Your task to perform on an android device: Open location settings Image 0: 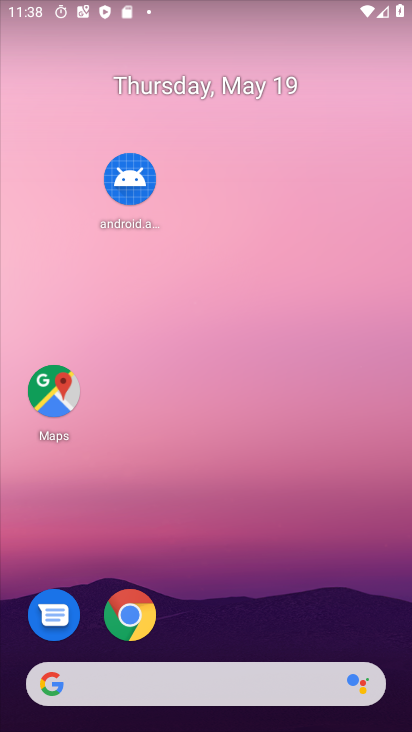
Step 0: drag from (248, 542) to (216, 196)
Your task to perform on an android device: Open location settings Image 1: 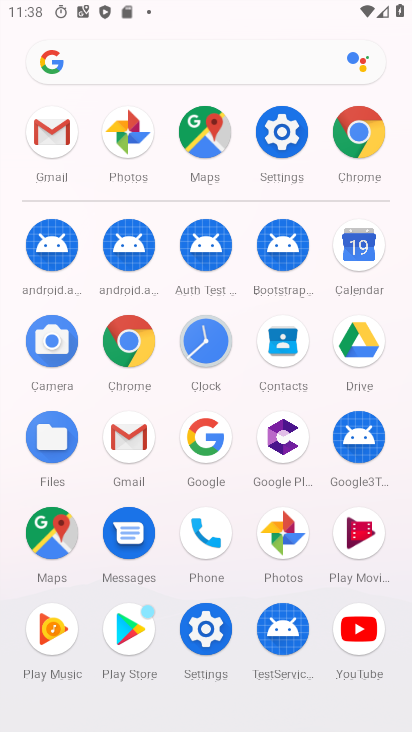
Step 1: click (214, 622)
Your task to perform on an android device: Open location settings Image 2: 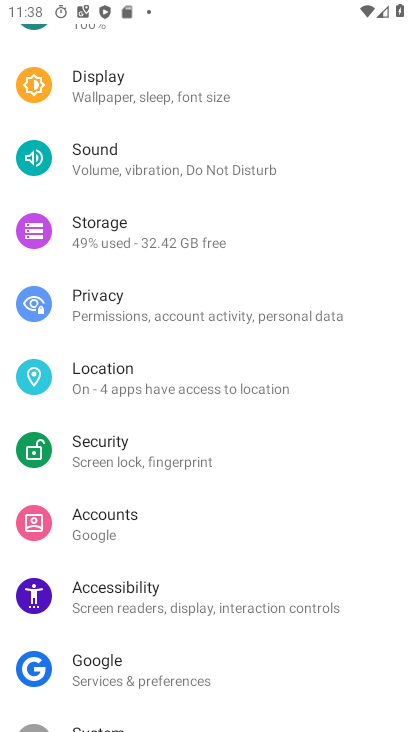
Step 2: drag from (206, 606) to (172, 336)
Your task to perform on an android device: Open location settings Image 3: 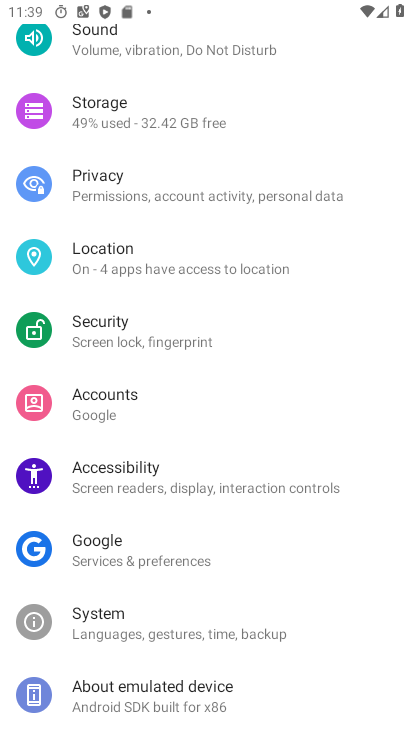
Step 3: click (171, 256)
Your task to perform on an android device: Open location settings Image 4: 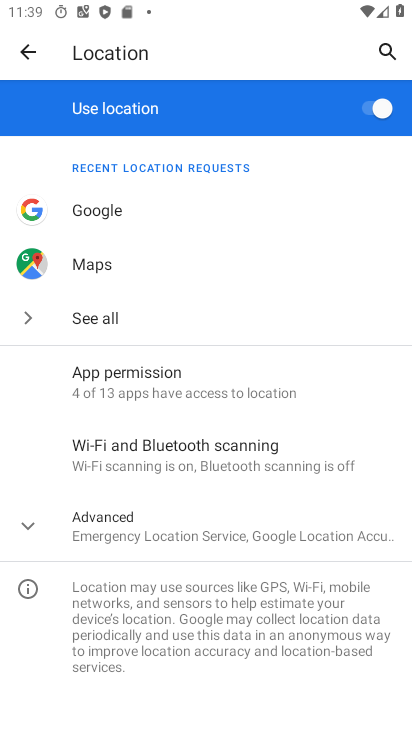
Step 4: task complete